Your task to perform on an android device: open app "Life360: Find Family & Friends" (install if not already installed) and go to login screen Image 0: 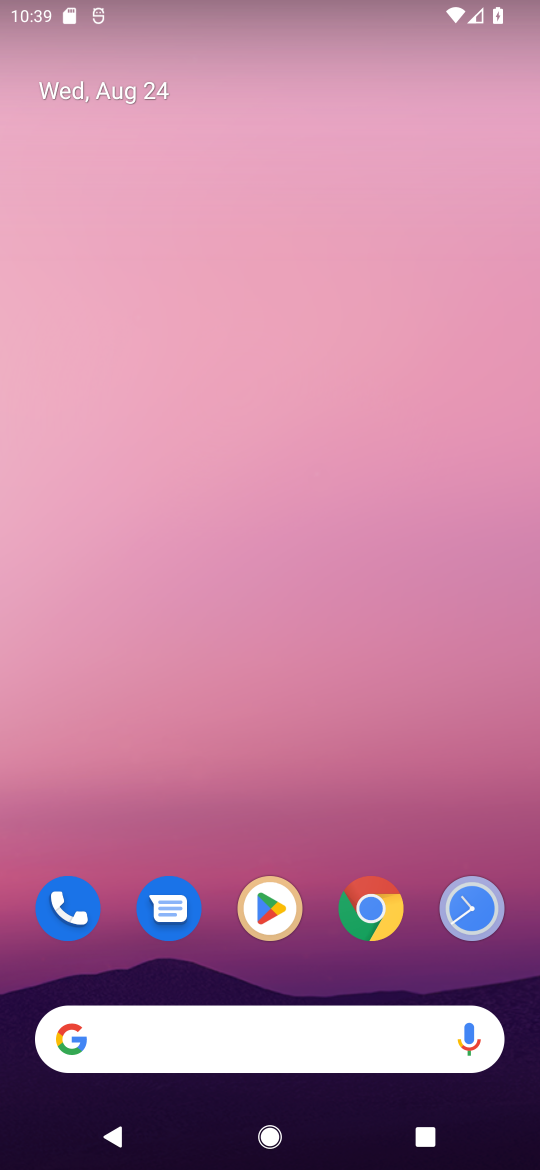
Step 0: click (269, 926)
Your task to perform on an android device: open app "Life360: Find Family & Friends" (install if not already installed) and go to login screen Image 1: 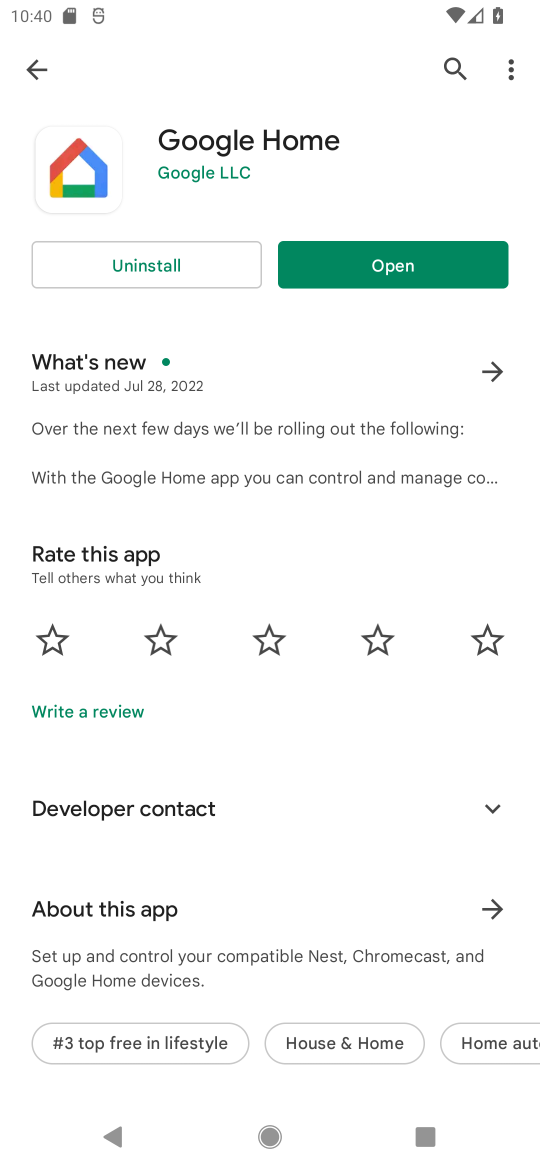
Step 1: click (39, 78)
Your task to perform on an android device: open app "Life360: Find Family & Friends" (install if not already installed) and go to login screen Image 2: 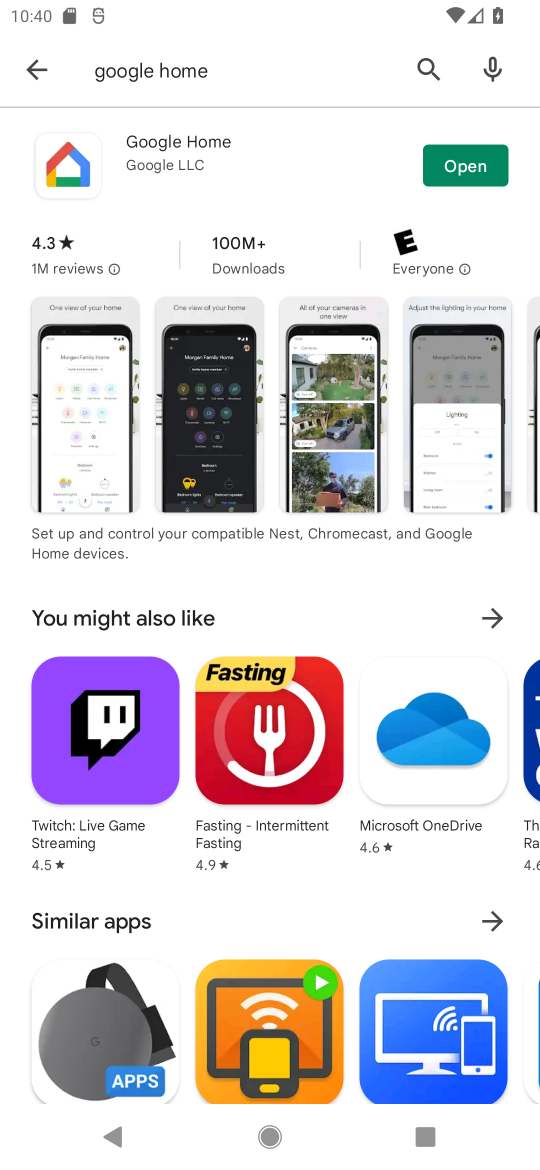
Step 2: click (414, 104)
Your task to perform on an android device: open app "Life360: Find Family & Friends" (install if not already installed) and go to login screen Image 3: 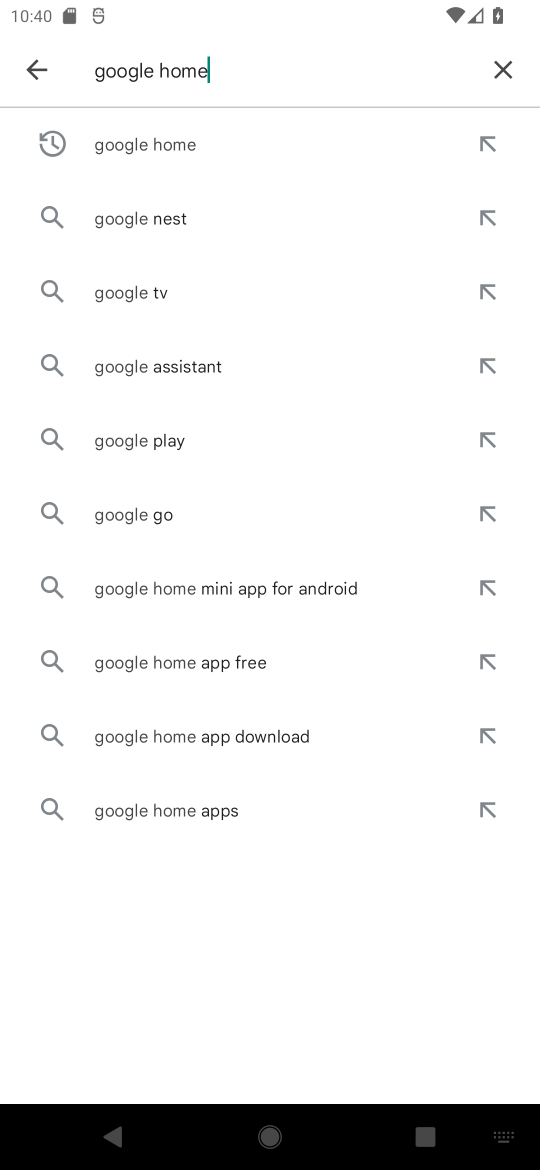
Step 3: click (510, 64)
Your task to perform on an android device: open app "Life360: Find Family & Friends" (install if not already installed) and go to login screen Image 4: 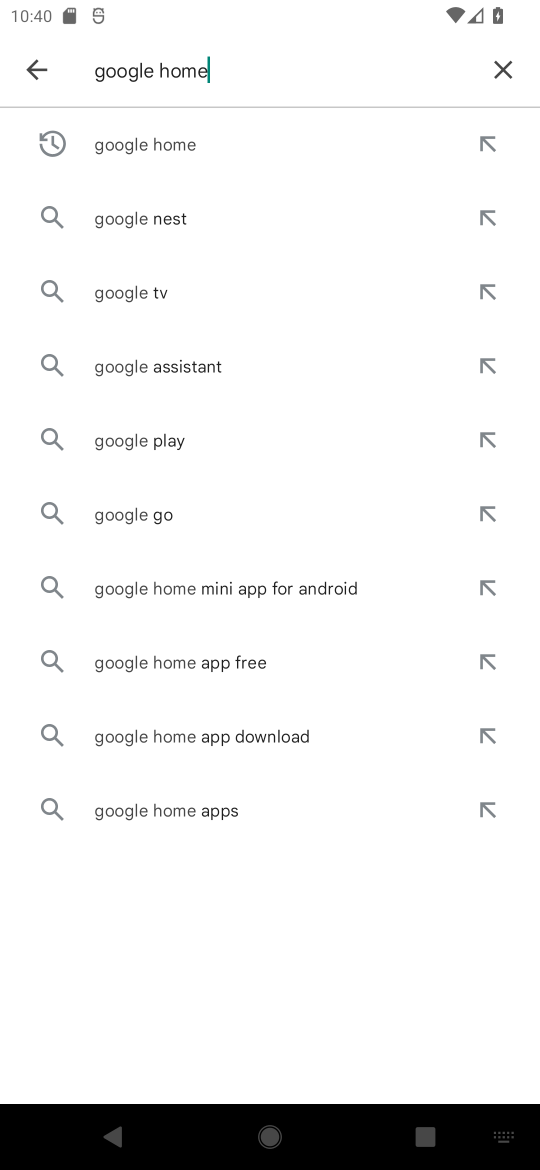
Step 4: click (510, 64)
Your task to perform on an android device: open app "Life360: Find Family & Friends" (install if not already installed) and go to login screen Image 5: 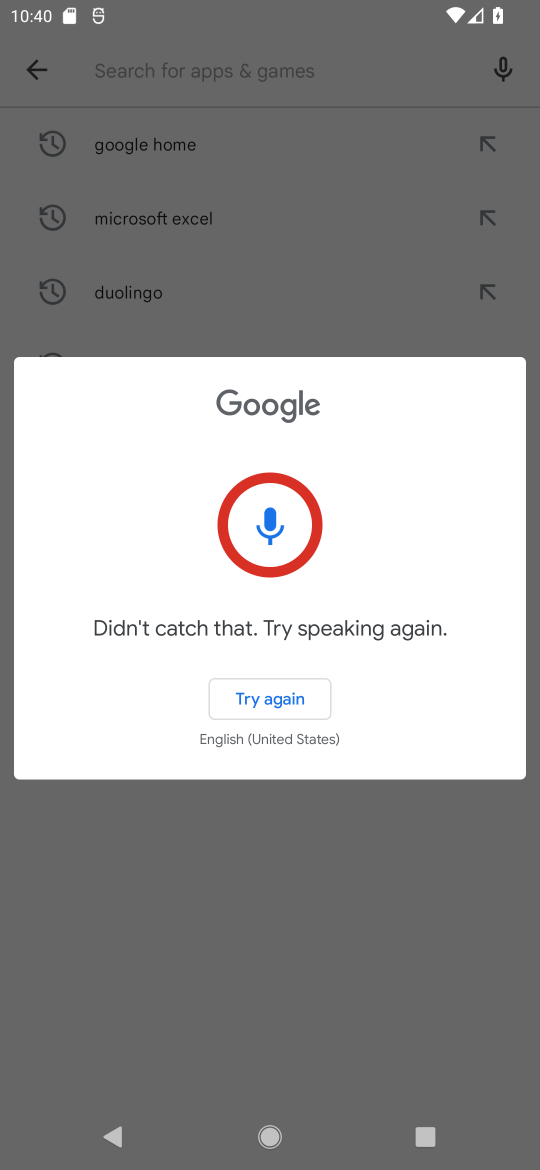
Step 5: click (282, 688)
Your task to perform on an android device: open app "Life360: Find Family & Friends" (install if not already installed) and go to login screen Image 6: 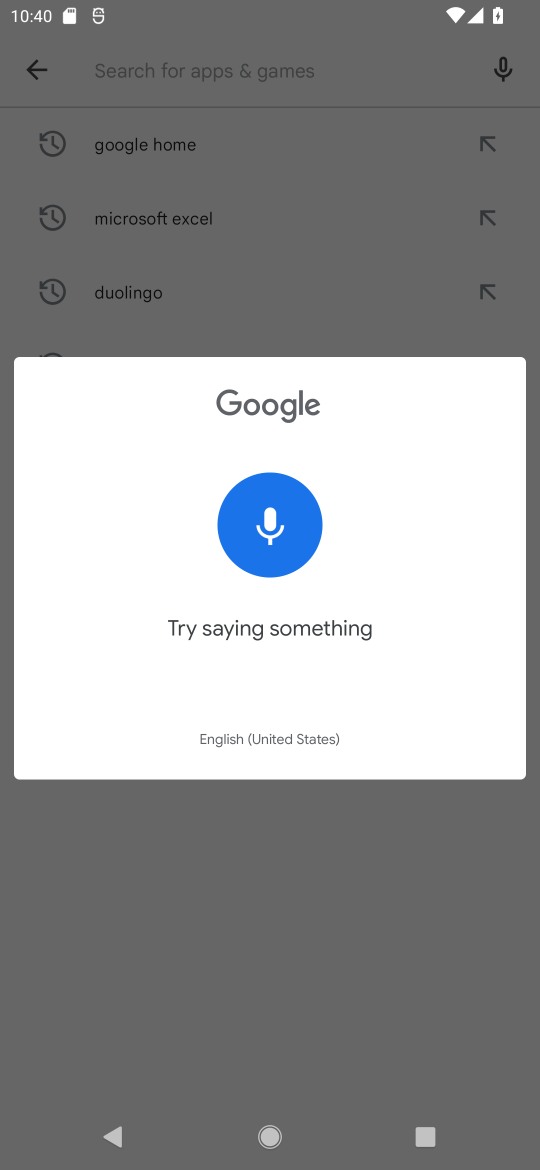
Step 6: click (277, 831)
Your task to perform on an android device: open app "Life360: Find Family & Friends" (install if not already installed) and go to login screen Image 7: 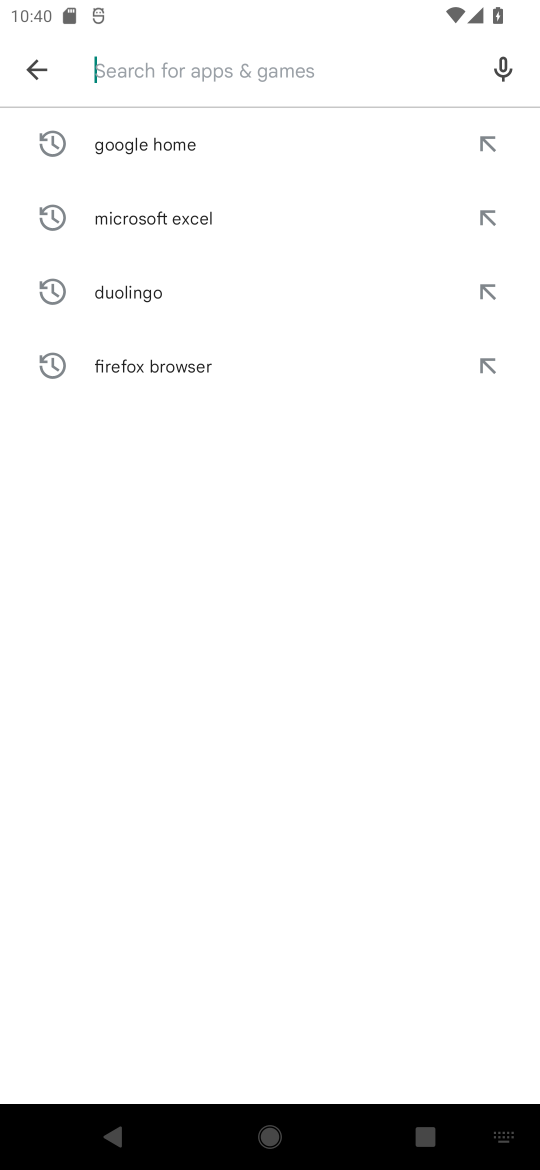
Step 7: type "Life360: Find Family & Friends"
Your task to perform on an android device: open app "Life360: Find Family & Friends" (install if not already installed) and go to login screen Image 8: 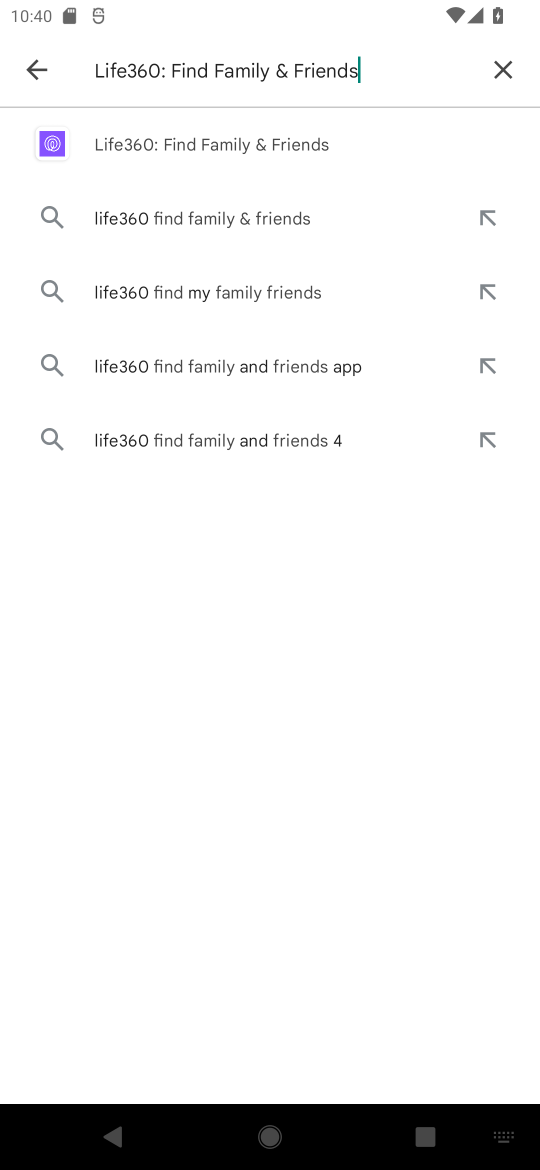
Step 8: click (172, 152)
Your task to perform on an android device: open app "Life360: Find Family & Friends" (install if not already installed) and go to login screen Image 9: 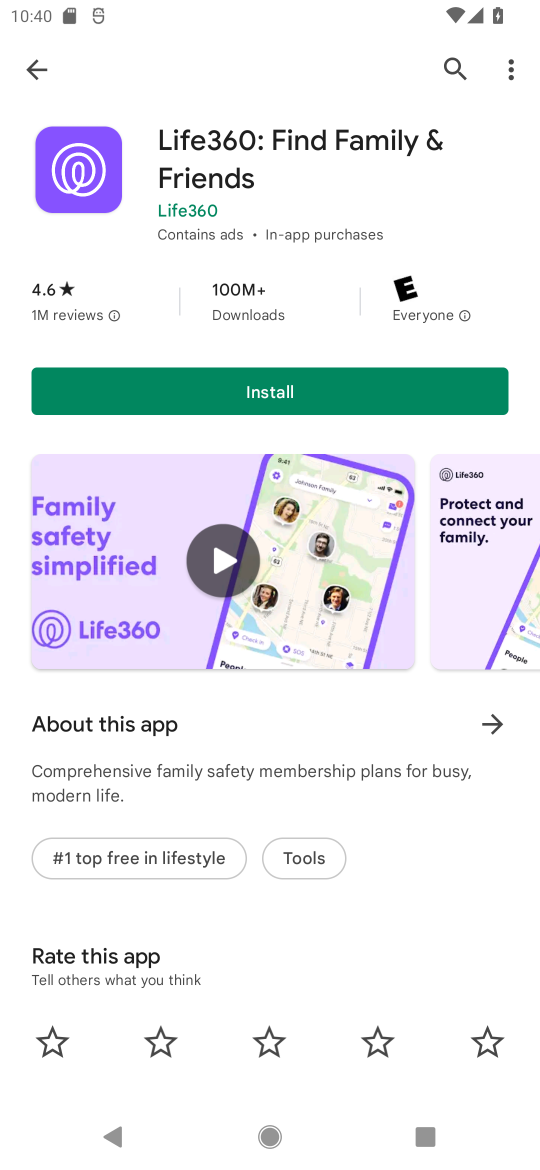
Step 9: click (343, 402)
Your task to perform on an android device: open app "Life360: Find Family & Friends" (install if not already installed) and go to login screen Image 10: 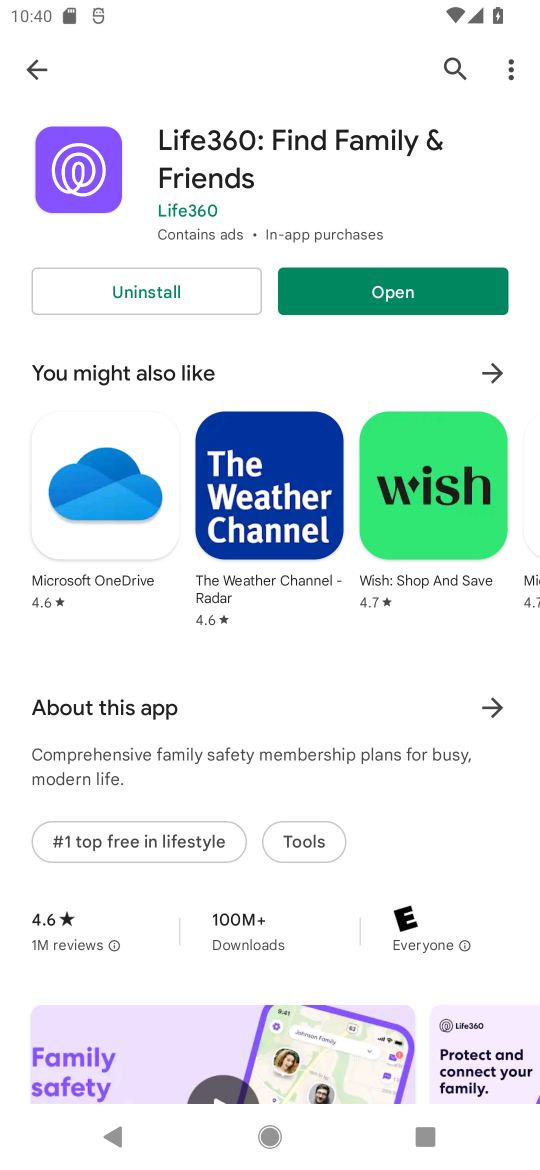
Step 10: click (444, 316)
Your task to perform on an android device: open app "Life360: Find Family & Friends" (install if not already installed) and go to login screen Image 11: 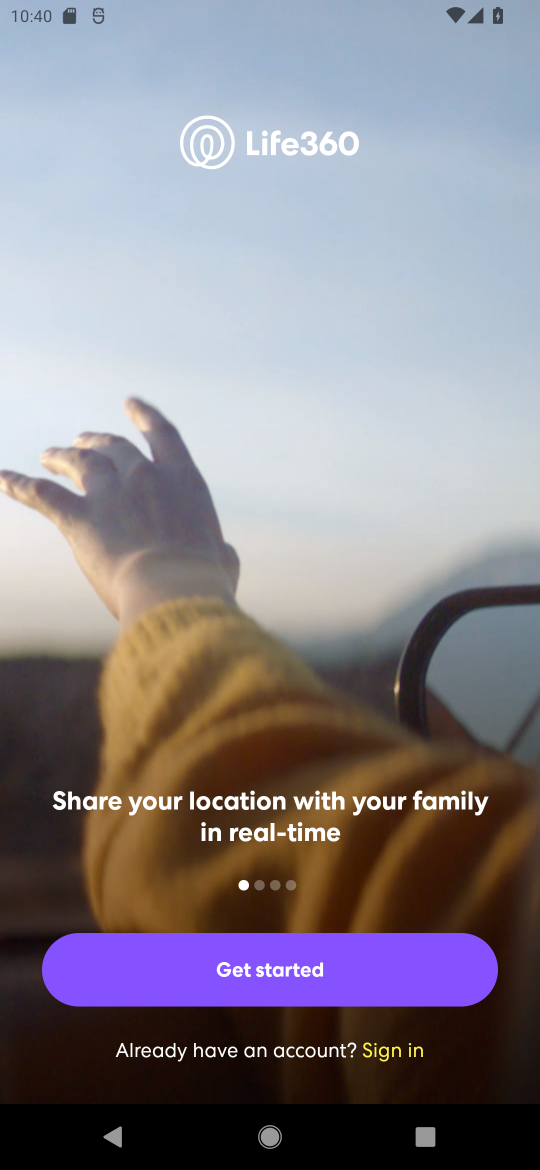
Step 11: click (377, 1054)
Your task to perform on an android device: open app "Life360: Find Family & Friends" (install if not already installed) and go to login screen Image 12: 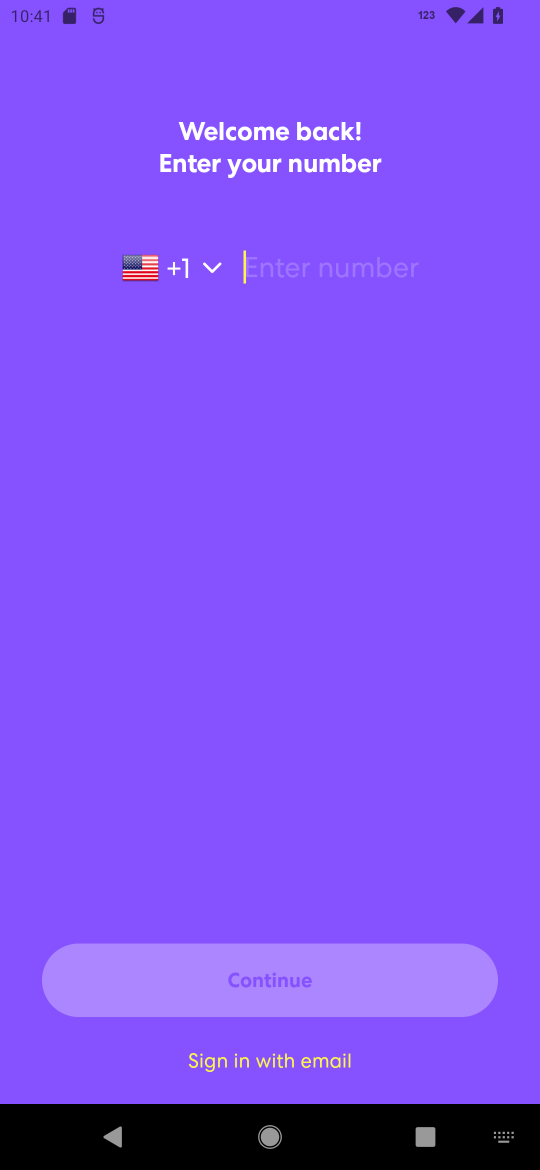
Step 12: task complete